Your task to perform on an android device: turn on data saver in the chrome app Image 0: 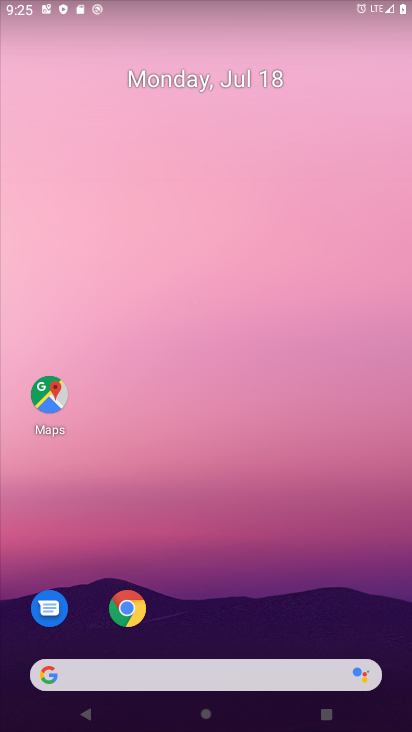
Step 0: drag from (234, 725) to (227, 156)
Your task to perform on an android device: turn on data saver in the chrome app Image 1: 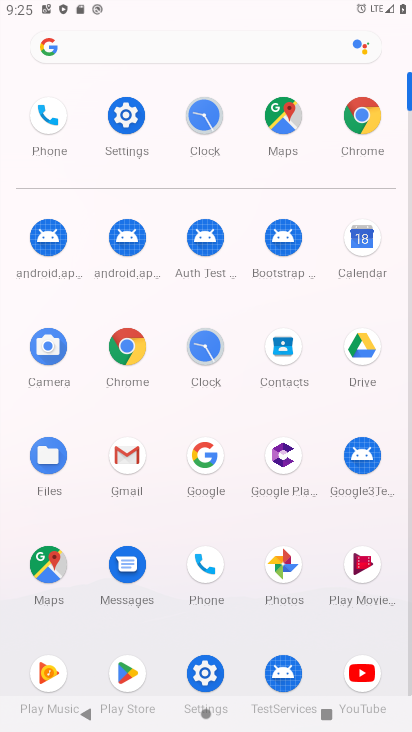
Step 1: click (123, 344)
Your task to perform on an android device: turn on data saver in the chrome app Image 2: 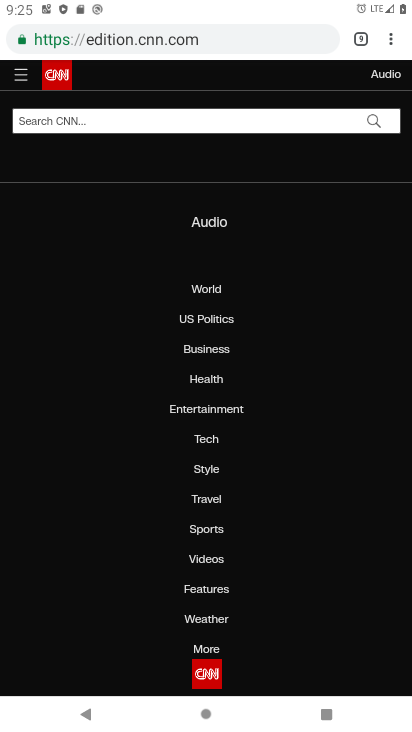
Step 2: click (391, 42)
Your task to perform on an android device: turn on data saver in the chrome app Image 3: 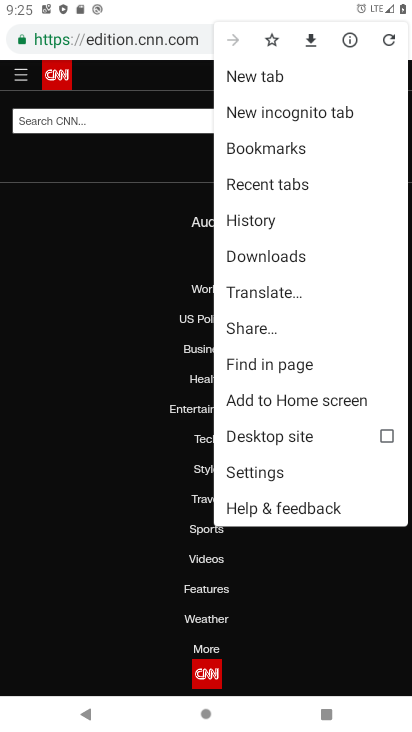
Step 3: click (262, 470)
Your task to perform on an android device: turn on data saver in the chrome app Image 4: 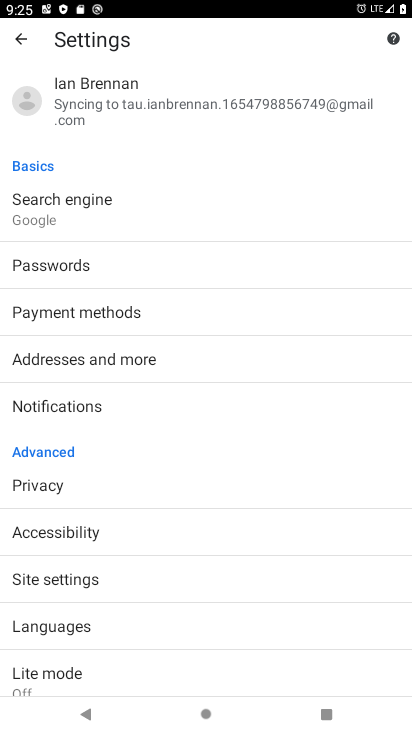
Step 4: click (43, 675)
Your task to perform on an android device: turn on data saver in the chrome app Image 5: 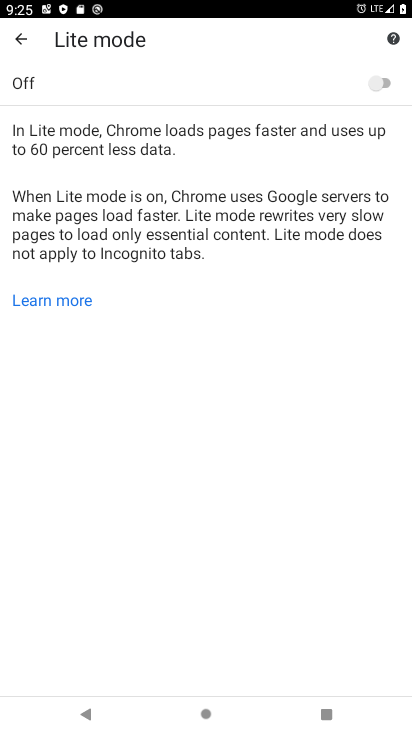
Step 5: click (385, 83)
Your task to perform on an android device: turn on data saver in the chrome app Image 6: 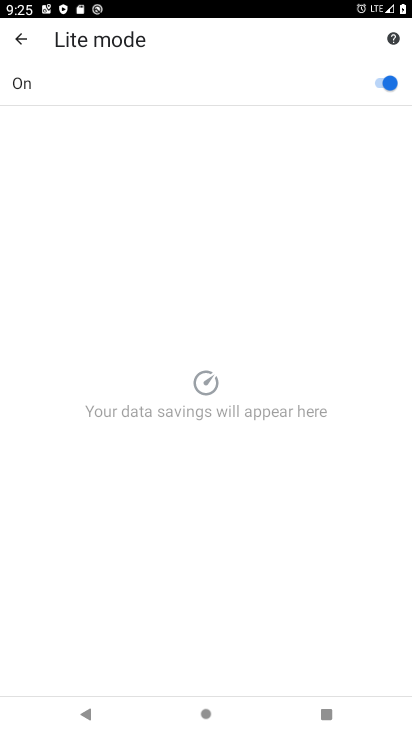
Step 6: task complete